Your task to perform on an android device: toggle show notifications on the lock screen Image 0: 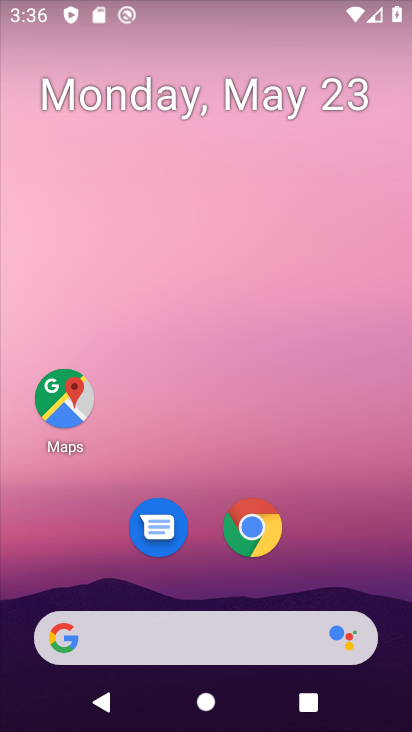
Step 0: drag from (345, 550) to (348, 178)
Your task to perform on an android device: toggle show notifications on the lock screen Image 1: 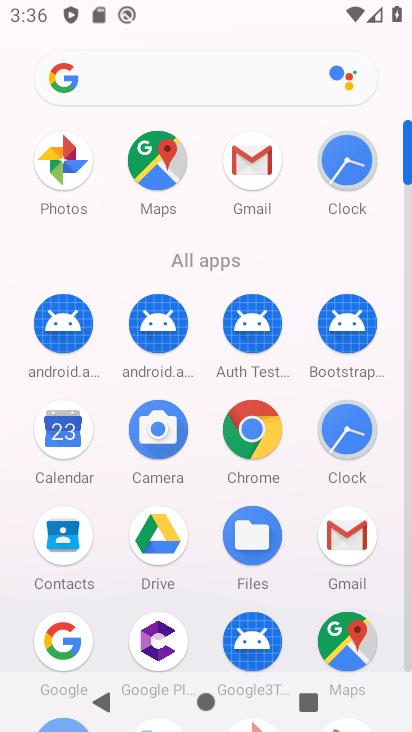
Step 1: click (409, 563)
Your task to perform on an android device: toggle show notifications on the lock screen Image 2: 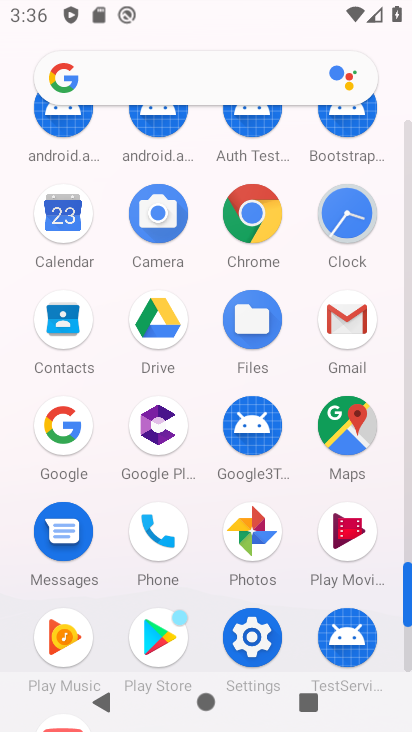
Step 2: click (234, 649)
Your task to perform on an android device: toggle show notifications on the lock screen Image 3: 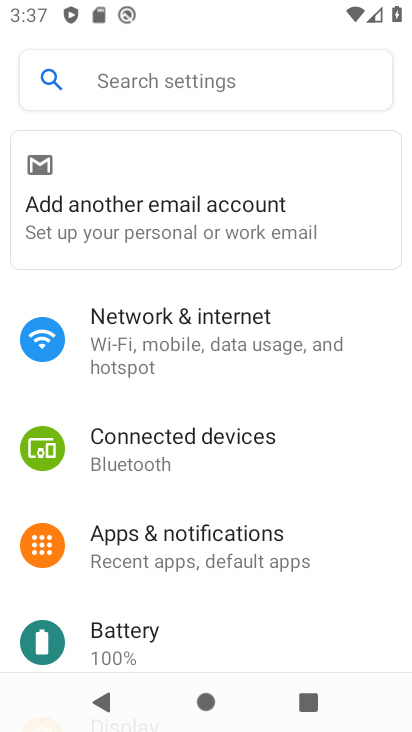
Step 3: click (211, 536)
Your task to perform on an android device: toggle show notifications on the lock screen Image 4: 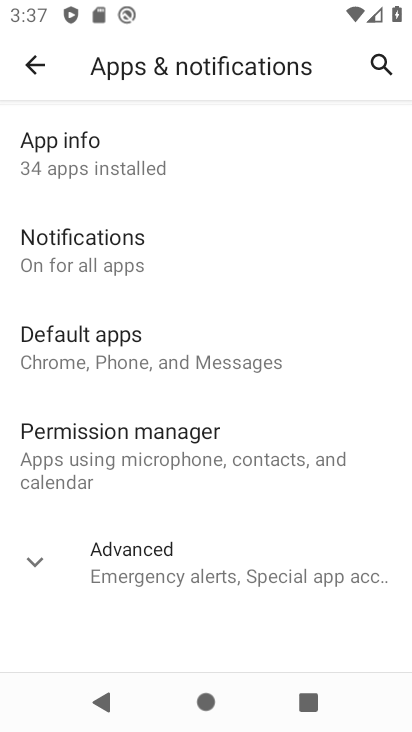
Step 4: click (71, 561)
Your task to perform on an android device: toggle show notifications on the lock screen Image 5: 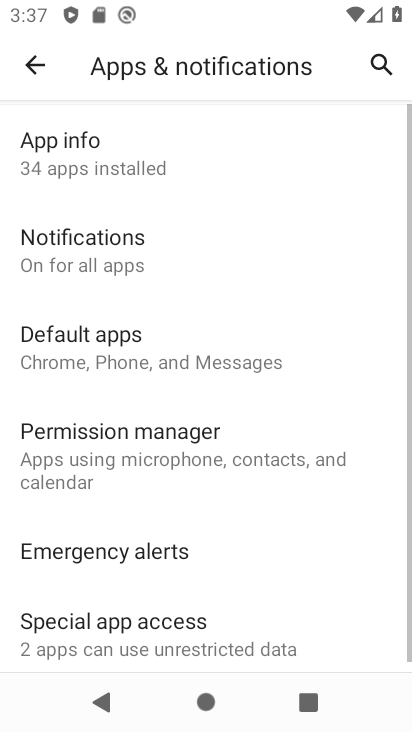
Step 5: click (134, 233)
Your task to perform on an android device: toggle show notifications on the lock screen Image 6: 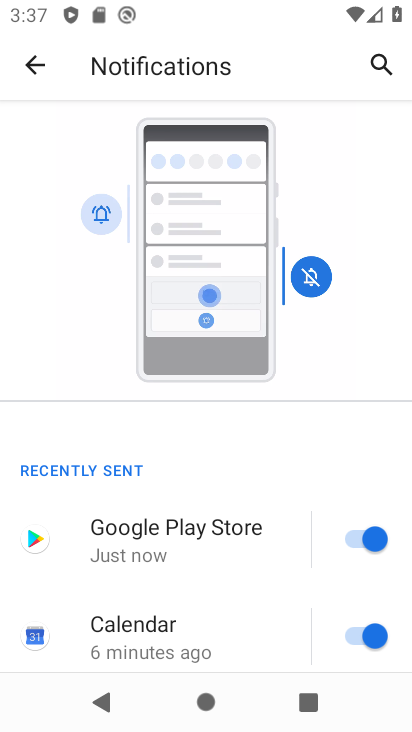
Step 6: drag from (88, 394) to (113, 201)
Your task to perform on an android device: toggle show notifications on the lock screen Image 7: 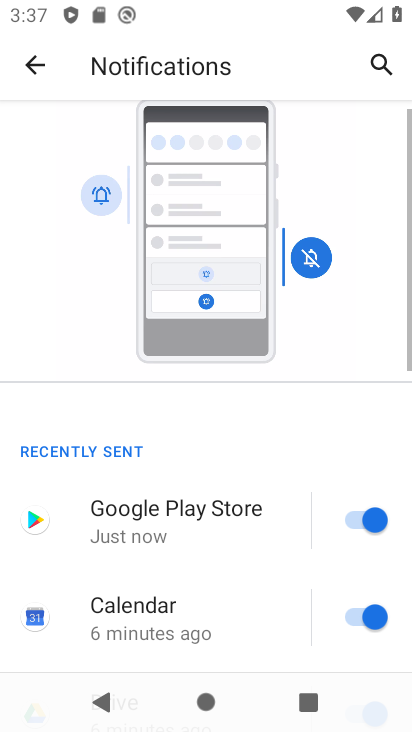
Step 7: drag from (92, 526) to (90, 188)
Your task to perform on an android device: toggle show notifications on the lock screen Image 8: 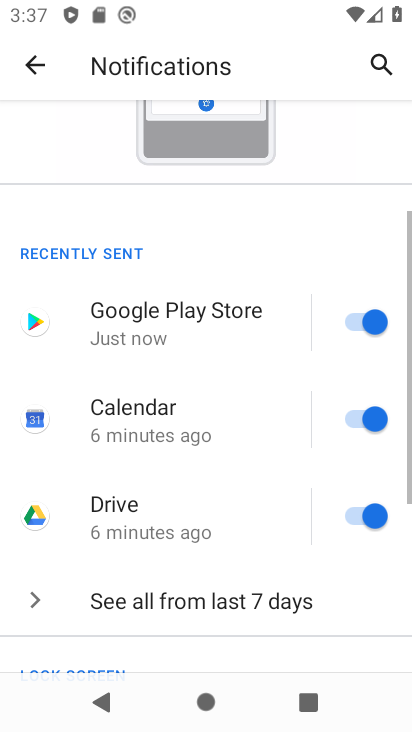
Step 8: drag from (121, 485) to (107, 211)
Your task to perform on an android device: toggle show notifications on the lock screen Image 9: 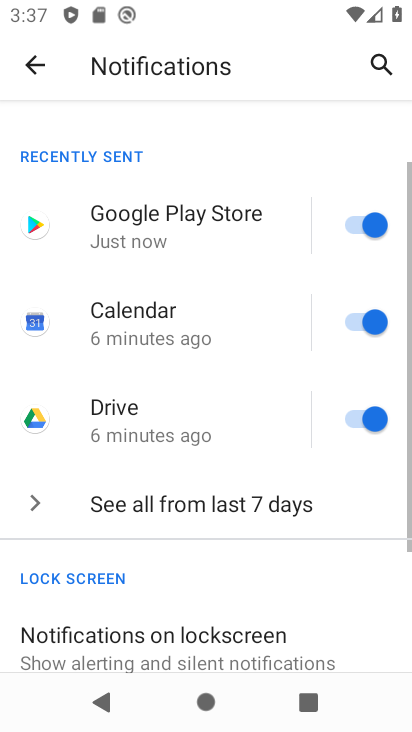
Step 9: drag from (121, 459) to (115, 185)
Your task to perform on an android device: toggle show notifications on the lock screen Image 10: 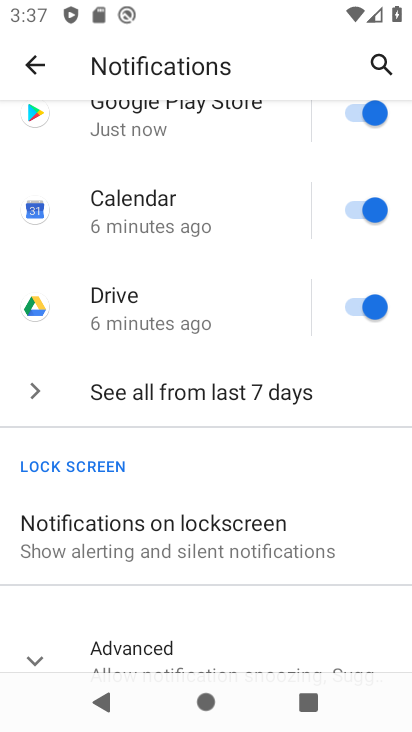
Step 10: click (134, 563)
Your task to perform on an android device: toggle show notifications on the lock screen Image 11: 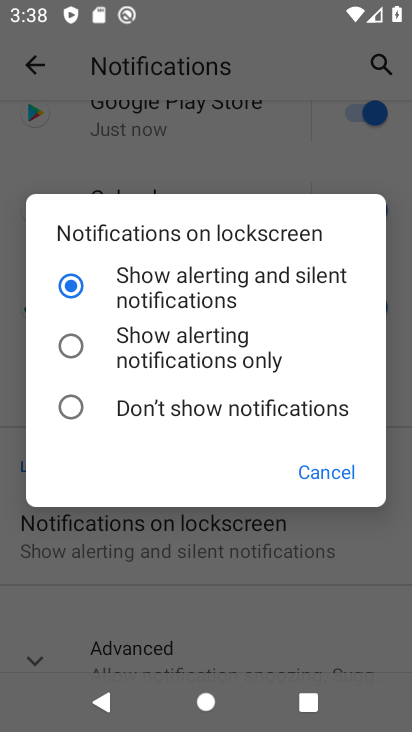
Step 11: click (154, 342)
Your task to perform on an android device: toggle show notifications on the lock screen Image 12: 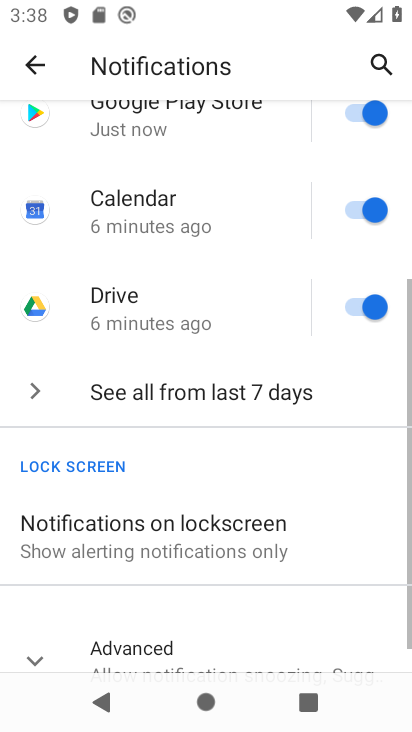
Step 12: task complete